Your task to perform on an android device: Clear the cart on amazon.com. Add "jbl flip 4" to the cart on amazon.com Image 0: 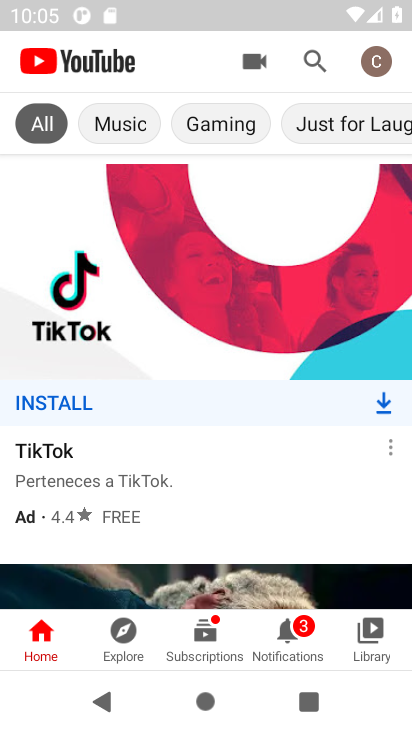
Step 0: press home button
Your task to perform on an android device: Clear the cart on amazon.com. Add "jbl flip 4" to the cart on amazon.com Image 1: 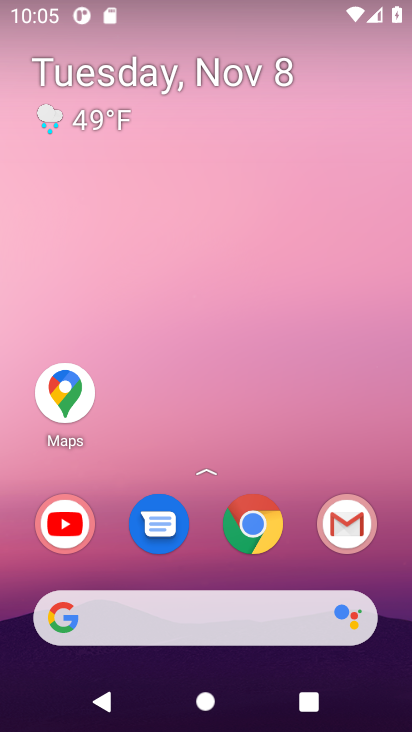
Step 1: click (252, 530)
Your task to perform on an android device: Clear the cart on amazon.com. Add "jbl flip 4" to the cart on amazon.com Image 2: 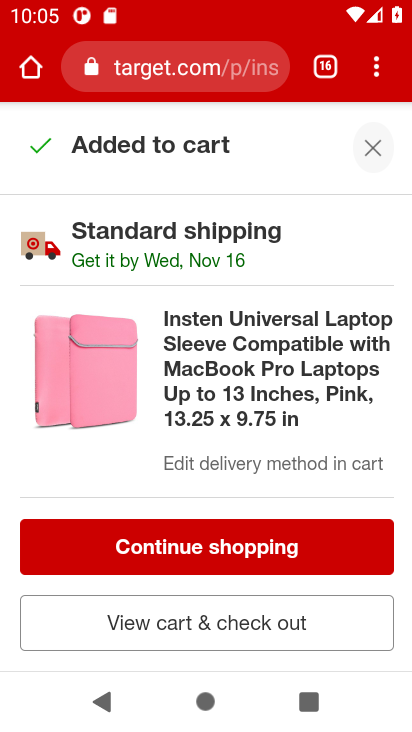
Step 2: click (198, 66)
Your task to perform on an android device: Clear the cart on amazon.com. Add "jbl flip 4" to the cart on amazon.com Image 3: 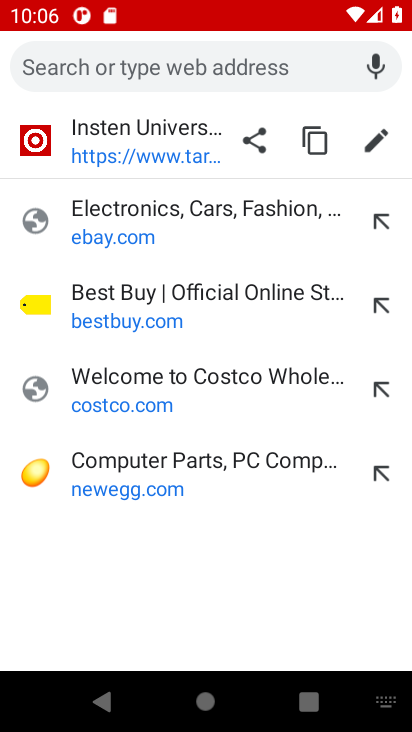
Step 3: type "amazon.com"
Your task to perform on an android device: Clear the cart on amazon.com. Add "jbl flip 4" to the cart on amazon.com Image 4: 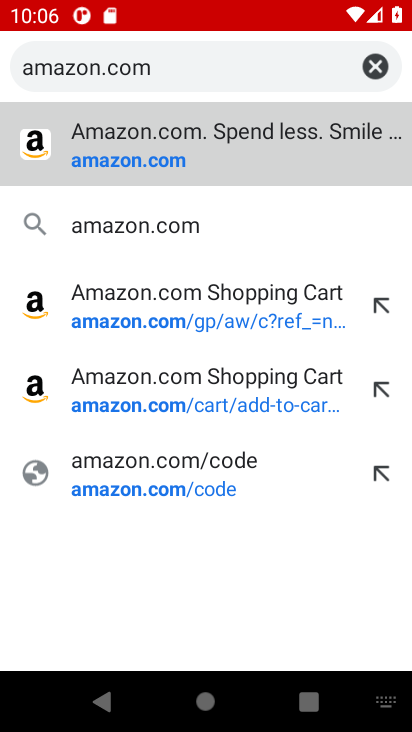
Step 4: click (168, 166)
Your task to perform on an android device: Clear the cart on amazon.com. Add "jbl flip 4" to the cart on amazon.com Image 5: 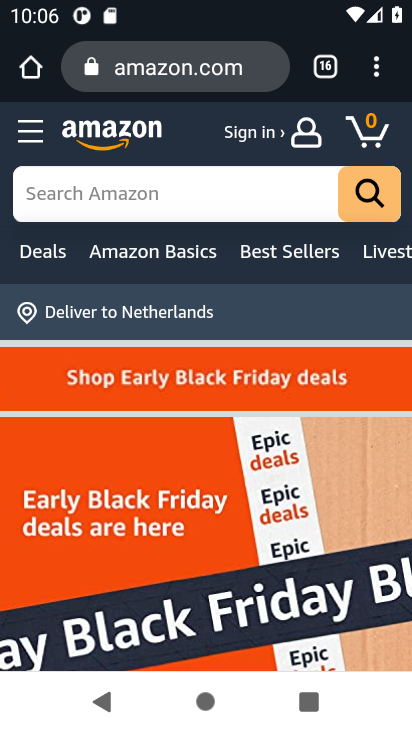
Step 5: click (378, 125)
Your task to perform on an android device: Clear the cart on amazon.com. Add "jbl flip 4" to the cart on amazon.com Image 6: 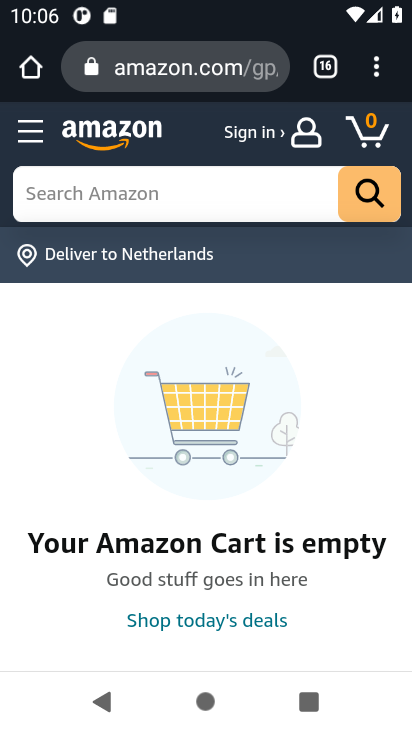
Step 6: drag from (319, 505) to (320, 241)
Your task to perform on an android device: Clear the cart on amazon.com. Add "jbl flip 4" to the cart on amazon.com Image 7: 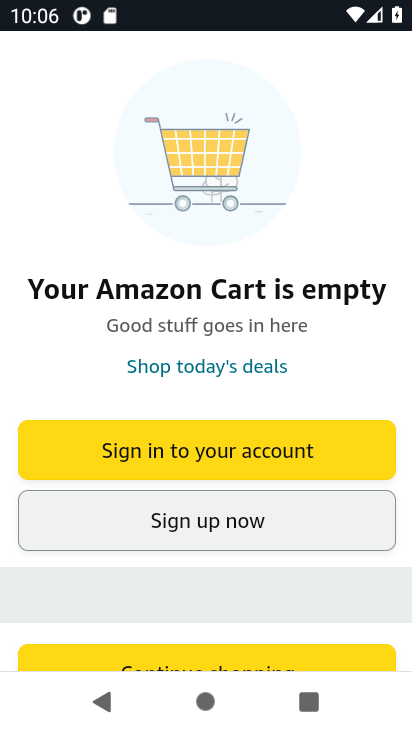
Step 7: drag from (261, 301) to (283, 527)
Your task to perform on an android device: Clear the cart on amazon.com. Add "jbl flip 4" to the cart on amazon.com Image 8: 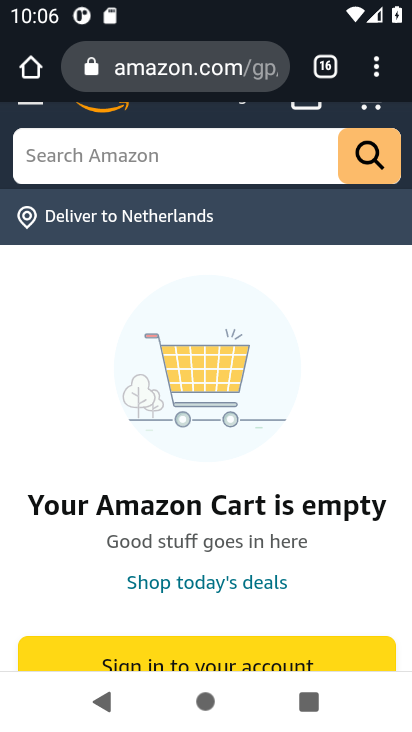
Step 8: click (231, 157)
Your task to perform on an android device: Clear the cart on amazon.com. Add "jbl flip 4" to the cart on amazon.com Image 9: 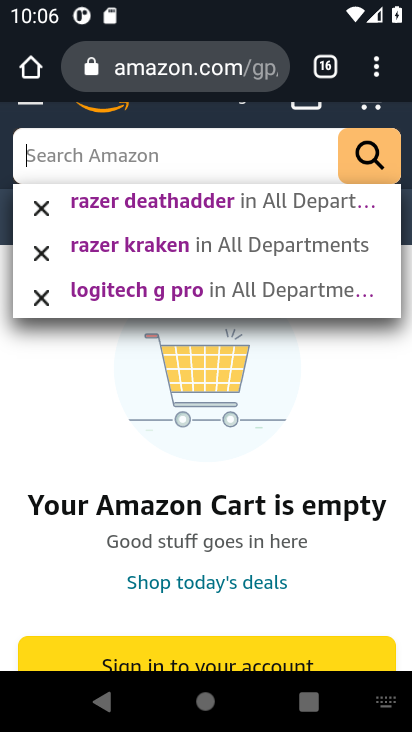
Step 9: type "jbl flip 4"
Your task to perform on an android device: Clear the cart on amazon.com. Add "jbl flip 4" to the cart on amazon.com Image 10: 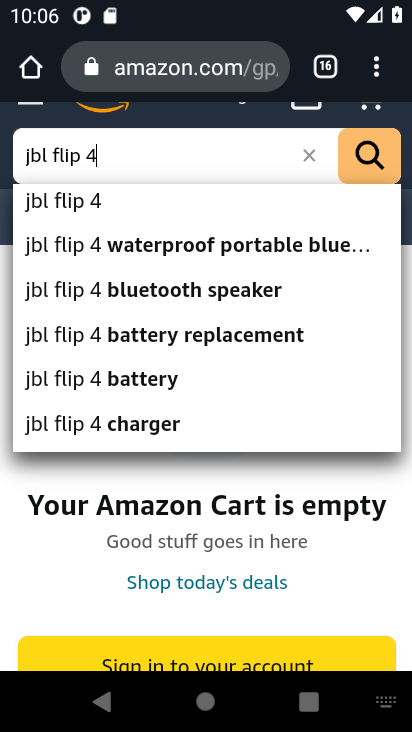
Step 10: click (64, 205)
Your task to perform on an android device: Clear the cart on amazon.com. Add "jbl flip 4" to the cart on amazon.com Image 11: 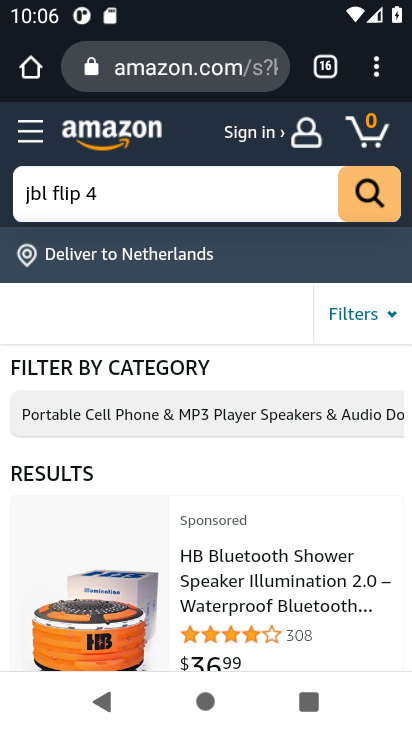
Step 11: drag from (187, 484) to (171, 197)
Your task to perform on an android device: Clear the cart on amazon.com. Add "jbl flip 4" to the cart on amazon.com Image 12: 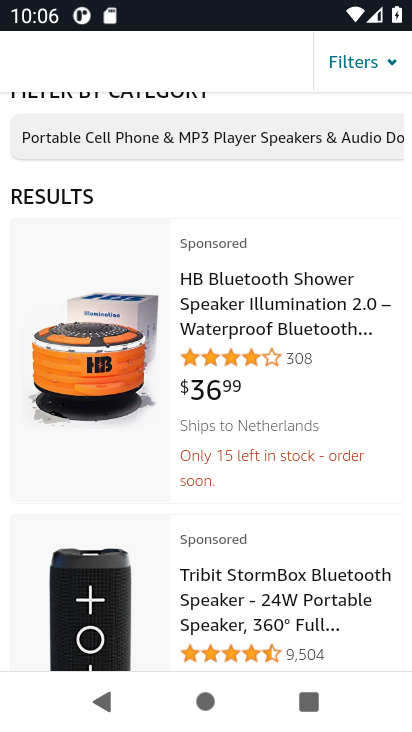
Step 12: drag from (198, 520) to (169, 257)
Your task to perform on an android device: Clear the cart on amazon.com. Add "jbl flip 4" to the cart on amazon.com Image 13: 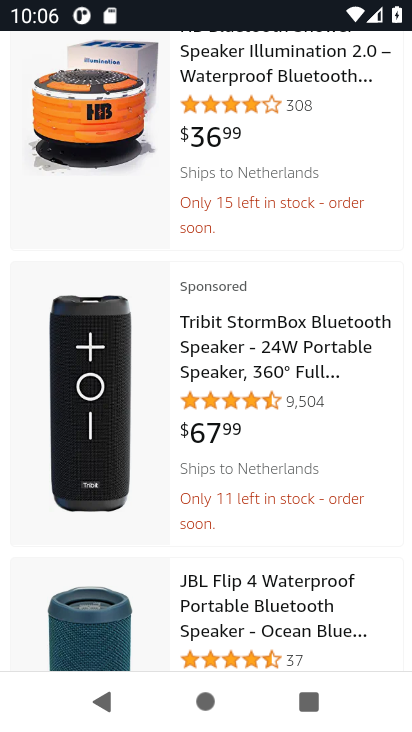
Step 13: drag from (197, 526) to (184, 323)
Your task to perform on an android device: Clear the cart on amazon.com. Add "jbl flip 4" to the cart on amazon.com Image 14: 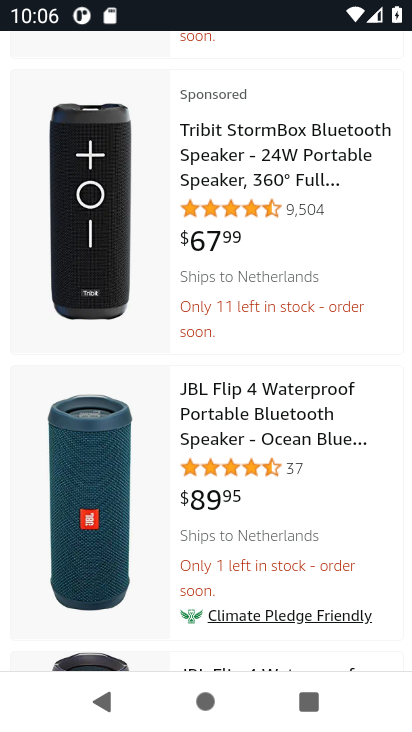
Step 14: click (192, 493)
Your task to perform on an android device: Clear the cart on amazon.com. Add "jbl flip 4" to the cart on amazon.com Image 15: 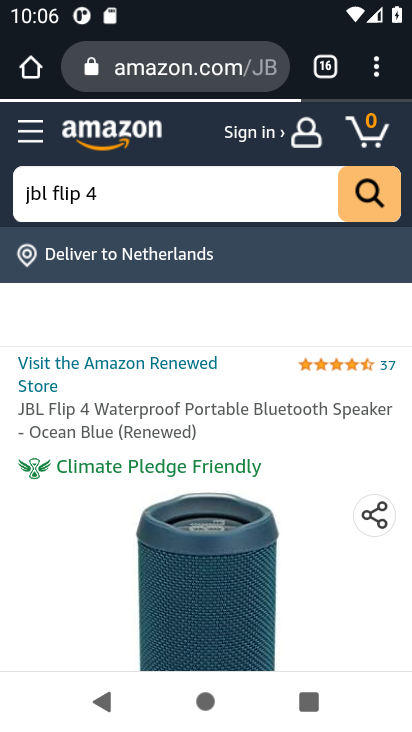
Step 15: drag from (219, 566) to (195, 164)
Your task to perform on an android device: Clear the cart on amazon.com. Add "jbl flip 4" to the cart on amazon.com Image 16: 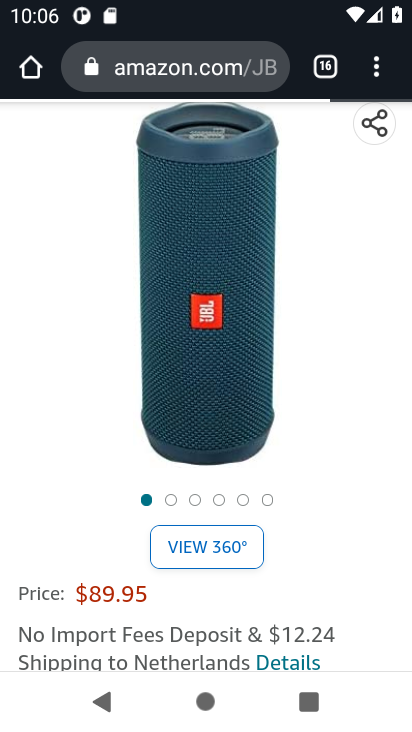
Step 16: drag from (188, 555) to (181, 171)
Your task to perform on an android device: Clear the cart on amazon.com. Add "jbl flip 4" to the cart on amazon.com Image 17: 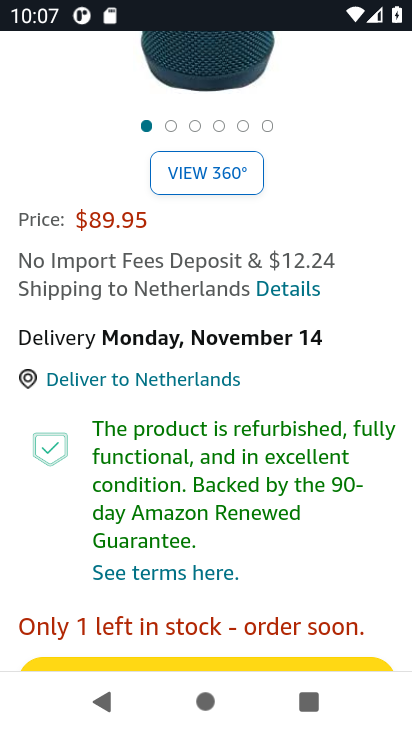
Step 17: drag from (197, 586) to (194, 233)
Your task to perform on an android device: Clear the cart on amazon.com. Add "jbl flip 4" to the cart on amazon.com Image 18: 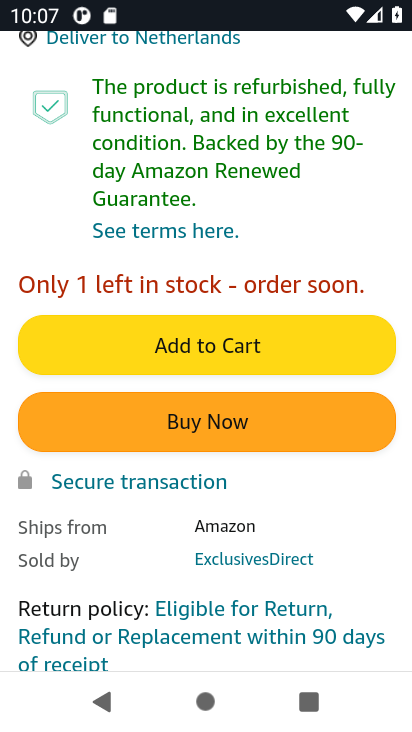
Step 18: click (197, 347)
Your task to perform on an android device: Clear the cart on amazon.com. Add "jbl flip 4" to the cart on amazon.com Image 19: 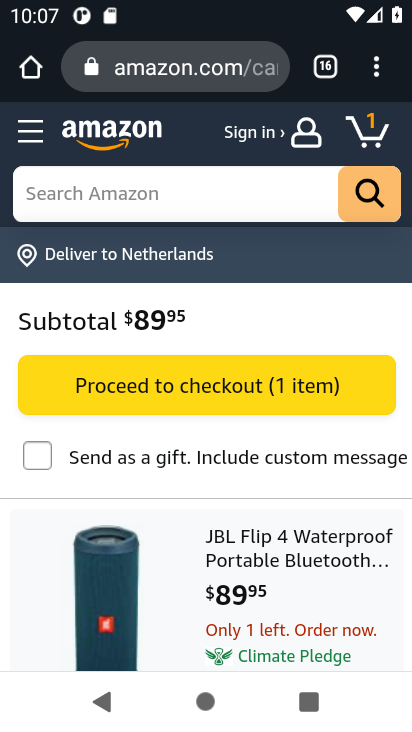
Step 19: task complete